Your task to perform on an android device: Open Google Image 0: 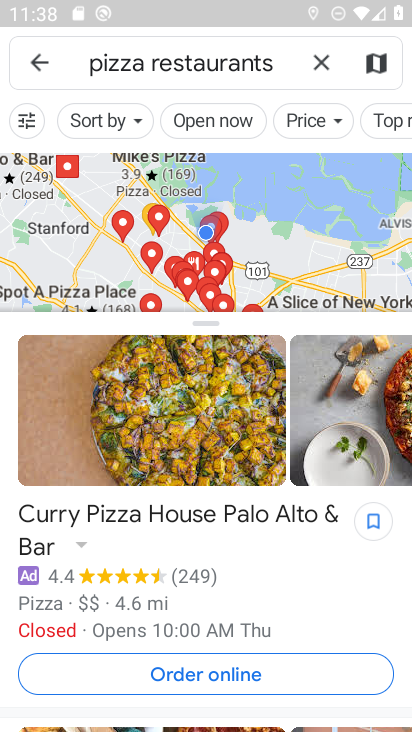
Step 0: press home button
Your task to perform on an android device: Open Google Image 1: 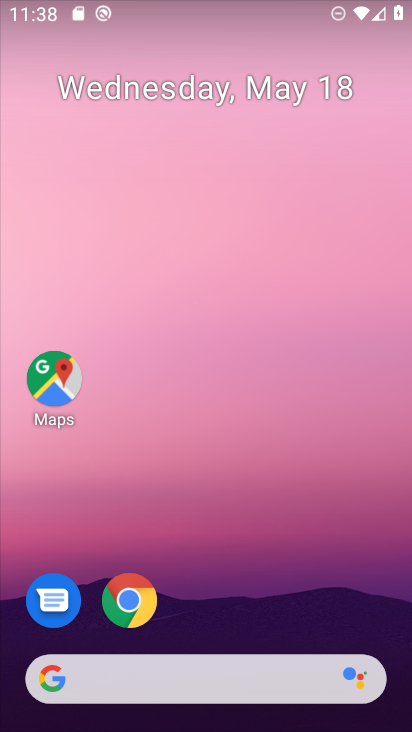
Step 1: click (184, 672)
Your task to perform on an android device: Open Google Image 2: 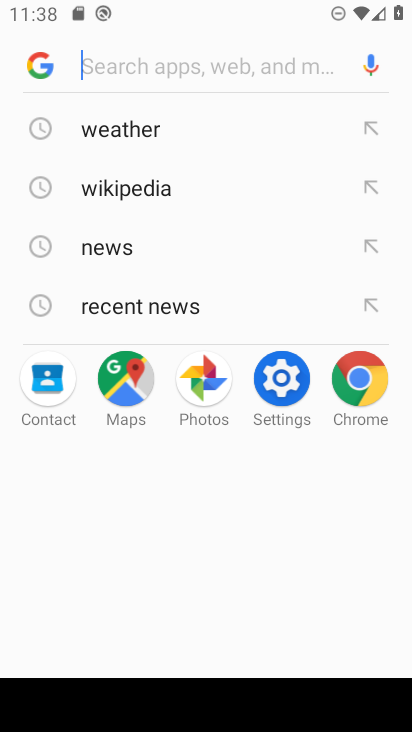
Step 2: click (46, 59)
Your task to perform on an android device: Open Google Image 3: 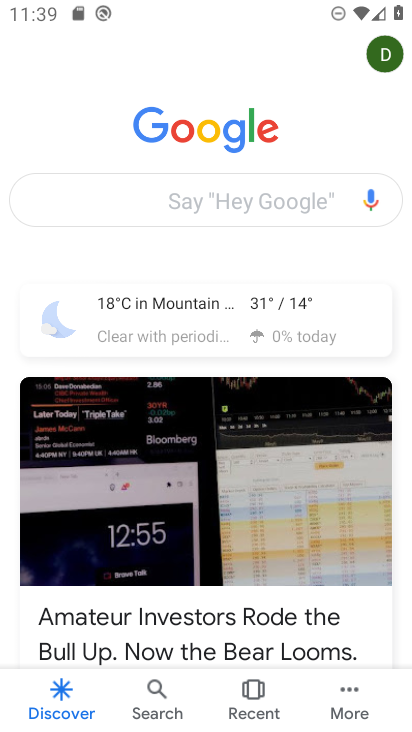
Step 3: task complete